Your task to perform on an android device: Open maps Image 0: 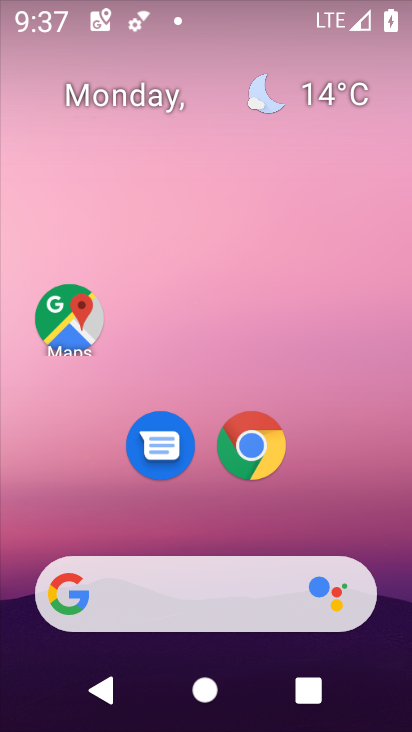
Step 0: click (72, 310)
Your task to perform on an android device: Open maps Image 1: 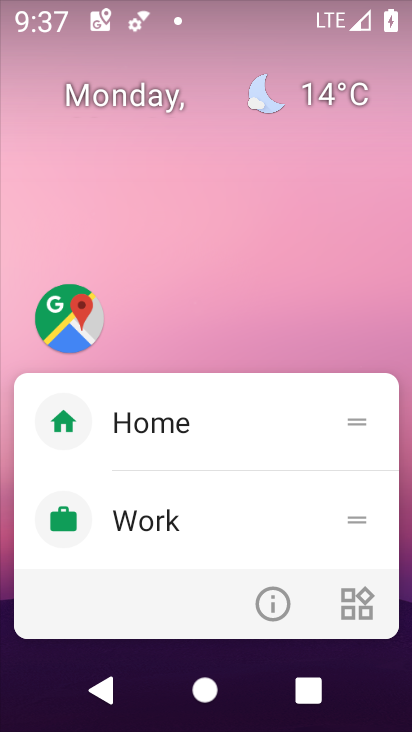
Step 1: click (69, 317)
Your task to perform on an android device: Open maps Image 2: 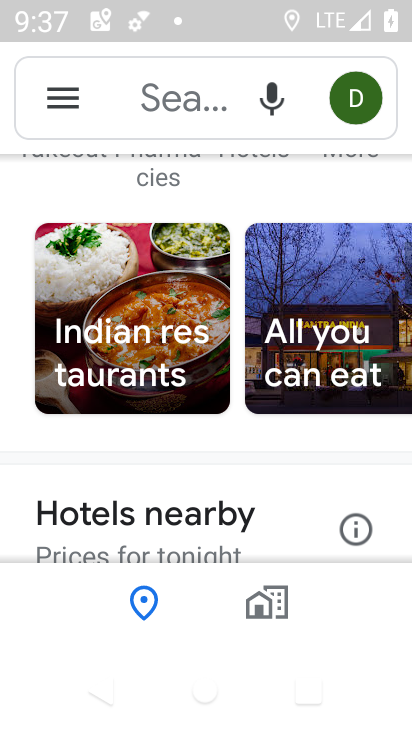
Step 2: task complete